Your task to perform on an android device: Open Reddit.com Image 0: 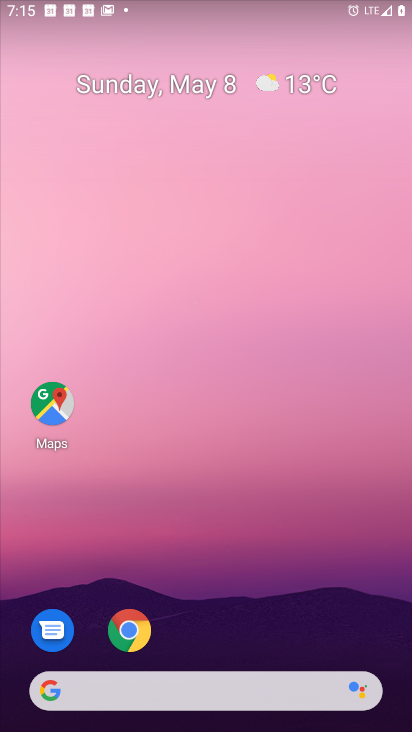
Step 0: click (124, 632)
Your task to perform on an android device: Open Reddit.com Image 1: 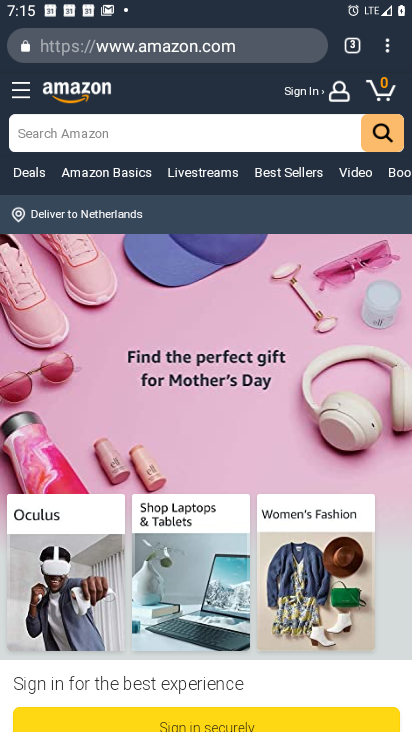
Step 1: click (385, 40)
Your task to perform on an android device: Open Reddit.com Image 2: 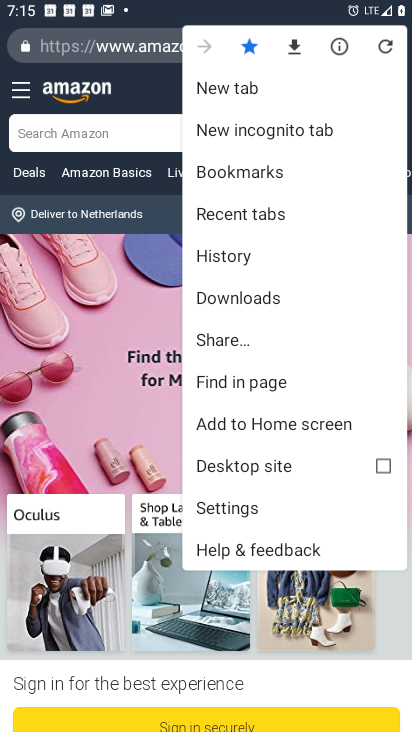
Step 2: click (226, 95)
Your task to perform on an android device: Open Reddit.com Image 3: 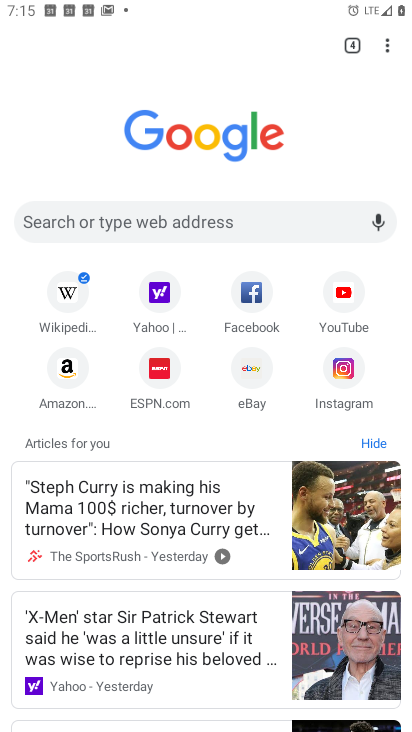
Step 3: click (164, 218)
Your task to perform on an android device: Open Reddit.com Image 4: 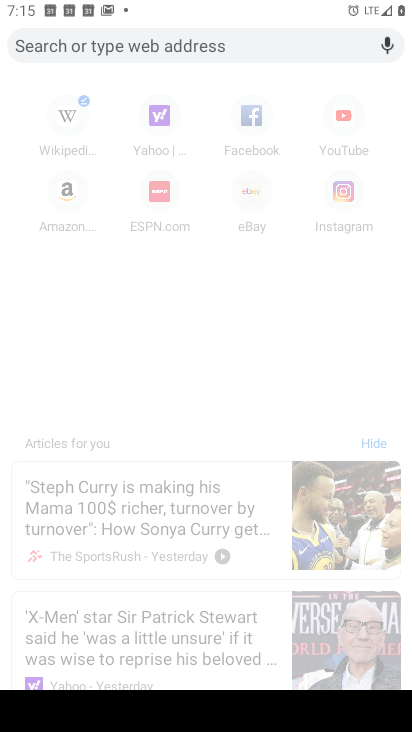
Step 4: type "reddit.com"
Your task to perform on an android device: Open Reddit.com Image 5: 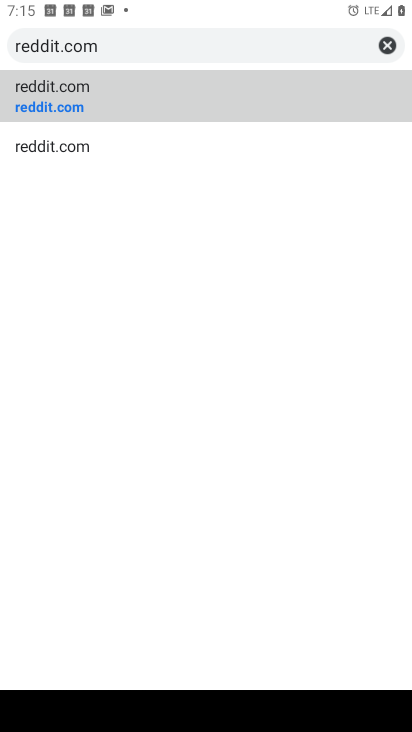
Step 5: click (66, 149)
Your task to perform on an android device: Open Reddit.com Image 6: 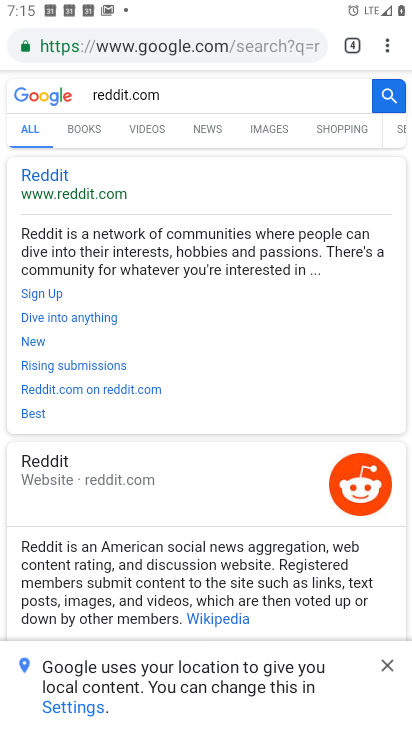
Step 6: task complete